Your task to perform on an android device: turn off sleep mode Image 0: 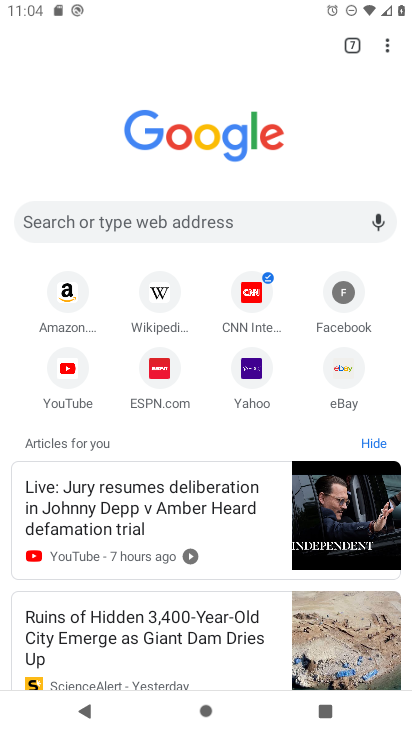
Step 0: press home button
Your task to perform on an android device: turn off sleep mode Image 1: 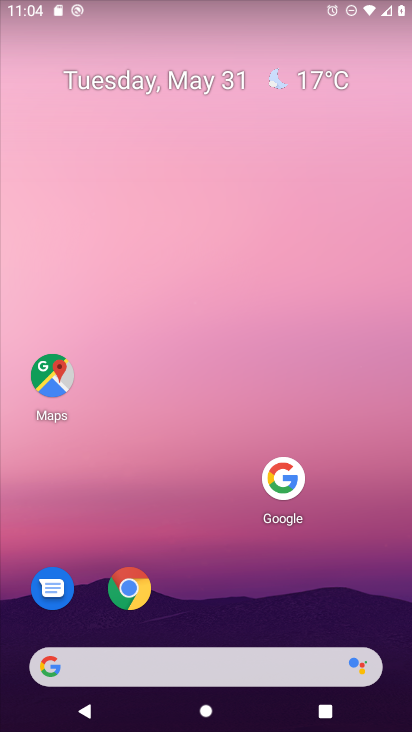
Step 1: drag from (170, 676) to (285, 150)
Your task to perform on an android device: turn off sleep mode Image 2: 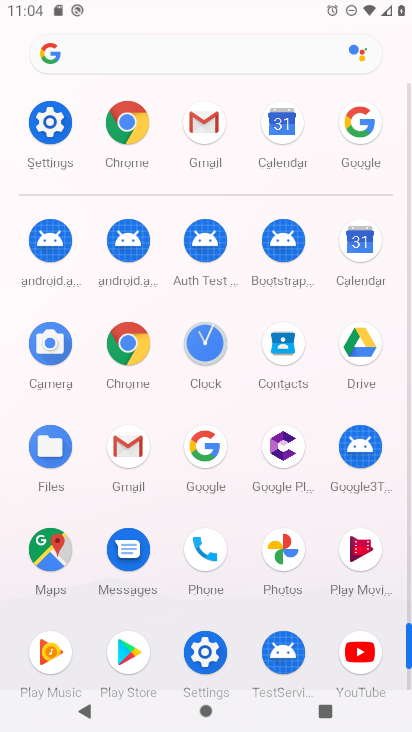
Step 2: click (55, 127)
Your task to perform on an android device: turn off sleep mode Image 3: 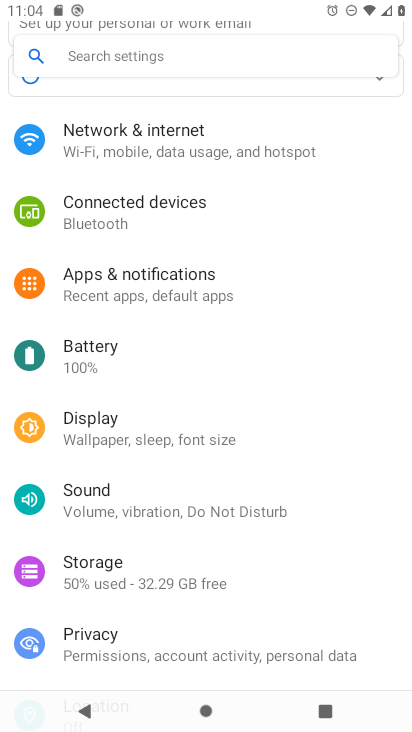
Step 3: click (142, 431)
Your task to perform on an android device: turn off sleep mode Image 4: 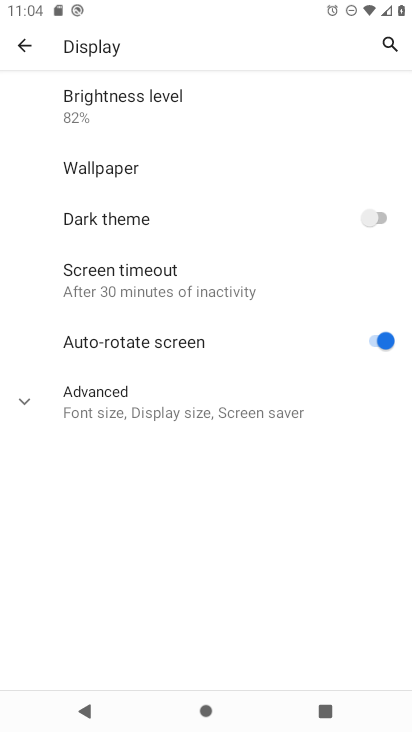
Step 4: task complete